Your task to perform on an android device: turn off wifi Image 0: 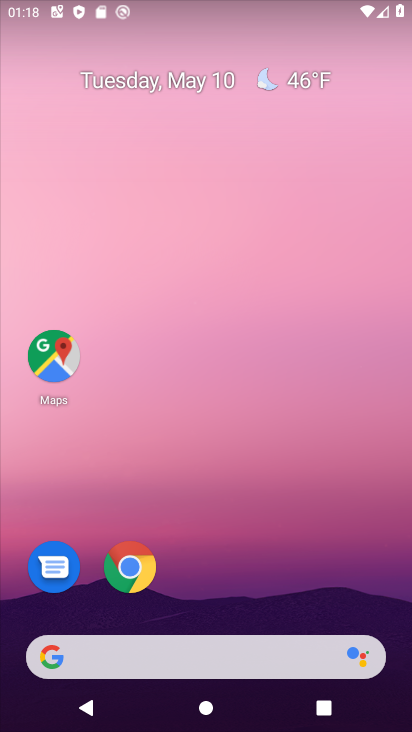
Step 0: drag from (267, 584) to (301, 169)
Your task to perform on an android device: turn off wifi Image 1: 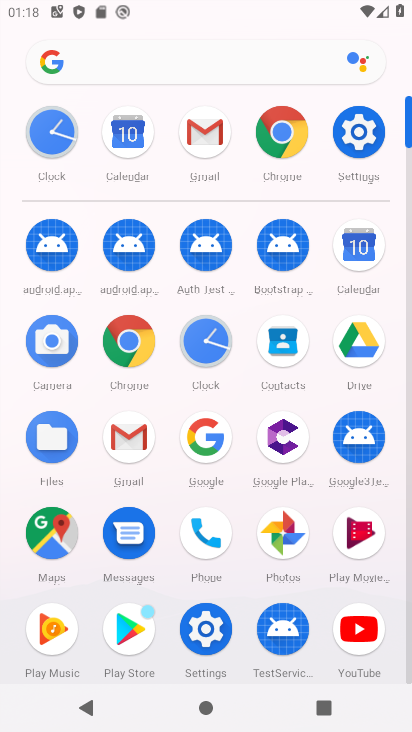
Step 1: click (362, 131)
Your task to perform on an android device: turn off wifi Image 2: 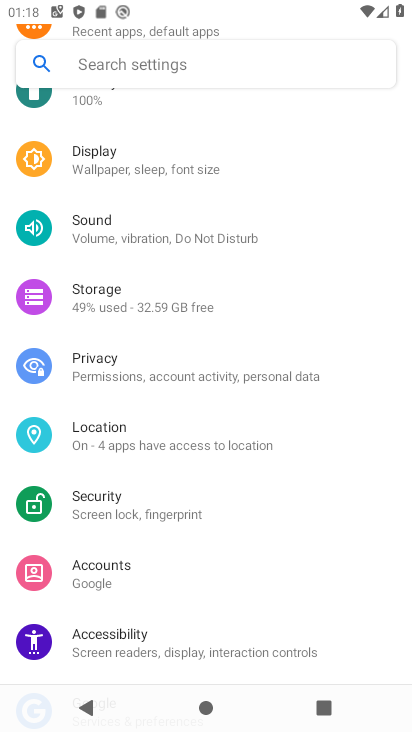
Step 2: drag from (258, 229) to (244, 483)
Your task to perform on an android device: turn off wifi Image 3: 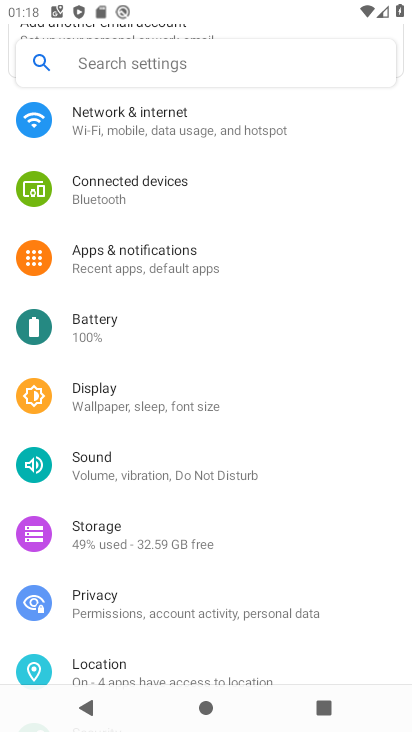
Step 3: click (205, 146)
Your task to perform on an android device: turn off wifi Image 4: 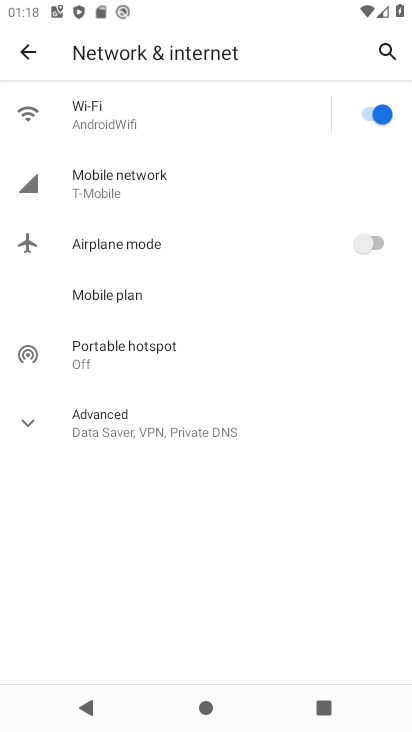
Step 4: click (156, 139)
Your task to perform on an android device: turn off wifi Image 5: 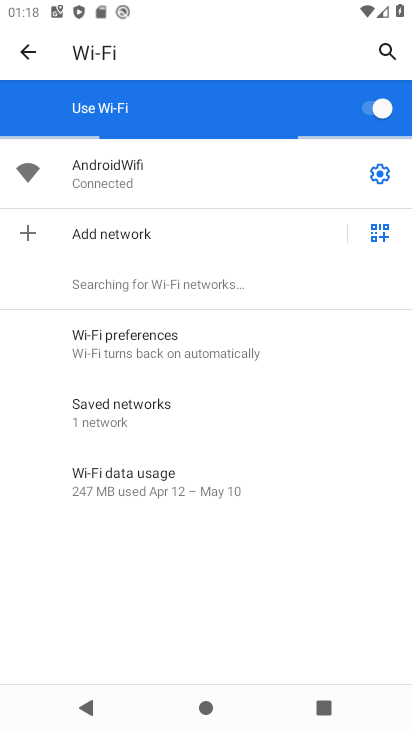
Step 5: task complete